Your task to perform on an android device: visit the assistant section in the google photos Image 0: 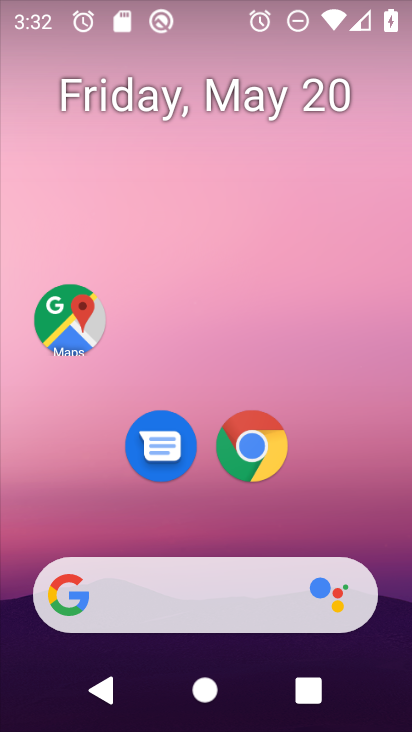
Step 0: drag from (348, 544) to (402, 602)
Your task to perform on an android device: visit the assistant section in the google photos Image 1: 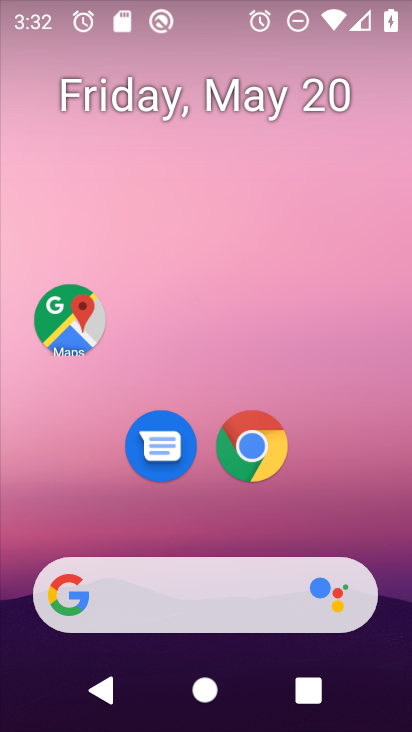
Step 1: click (166, 207)
Your task to perform on an android device: visit the assistant section in the google photos Image 2: 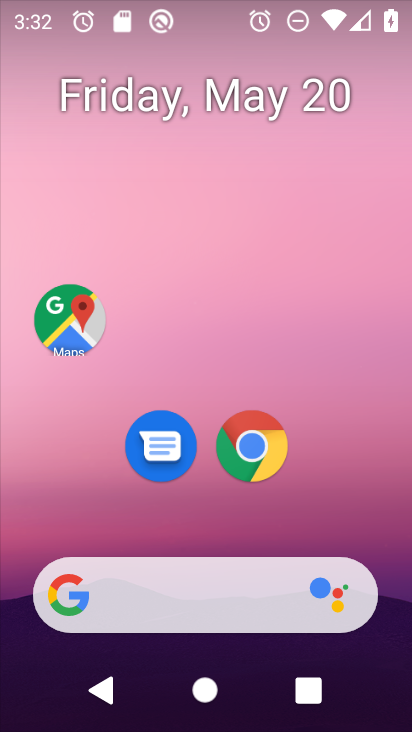
Step 2: drag from (365, 537) to (357, 1)
Your task to perform on an android device: visit the assistant section in the google photos Image 3: 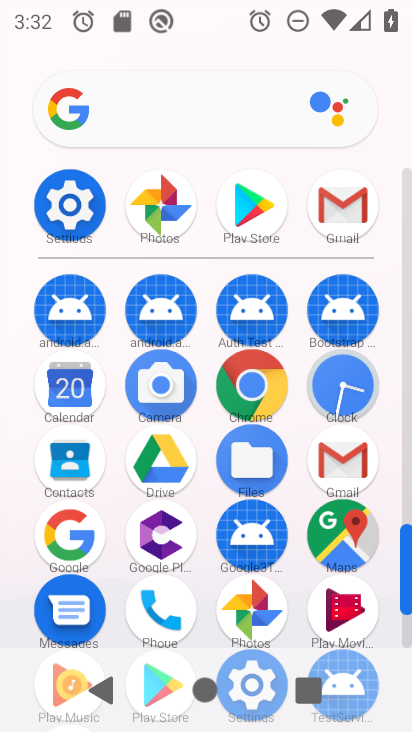
Step 3: click (152, 193)
Your task to perform on an android device: visit the assistant section in the google photos Image 4: 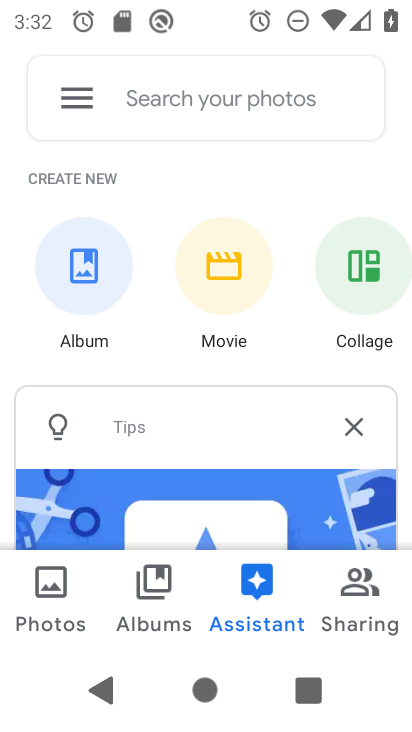
Step 4: click (258, 613)
Your task to perform on an android device: visit the assistant section in the google photos Image 5: 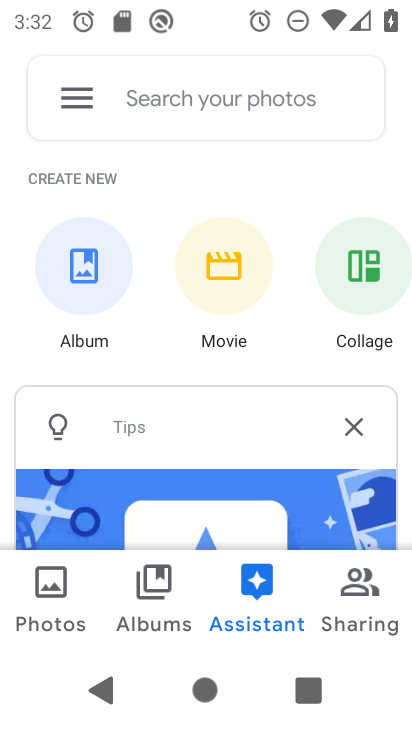
Step 5: task complete